Your task to perform on an android device: change text size in settings app Image 0: 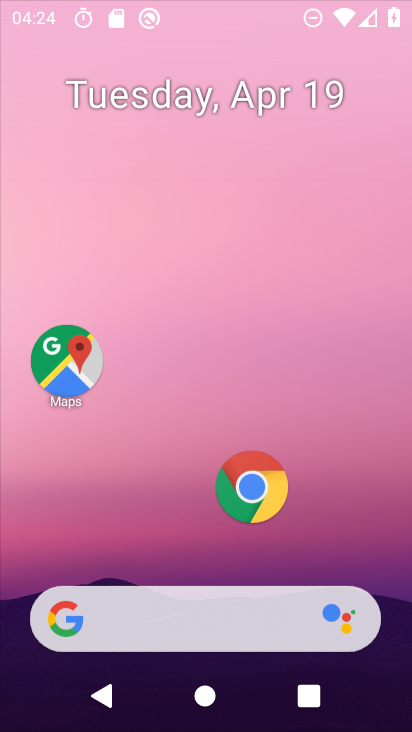
Step 0: click (264, 50)
Your task to perform on an android device: change text size in settings app Image 1: 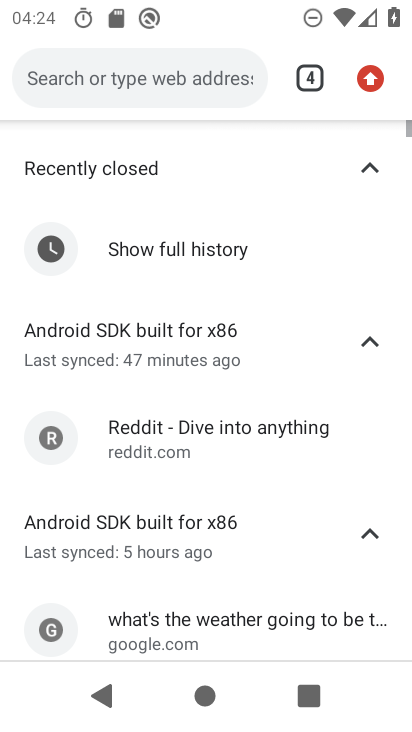
Step 1: press home button
Your task to perform on an android device: change text size in settings app Image 2: 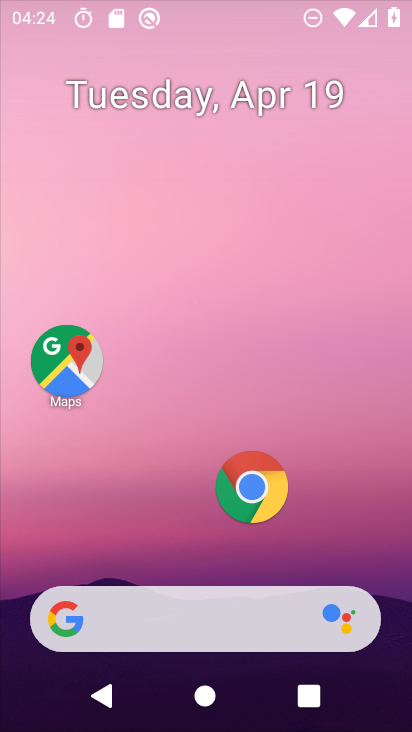
Step 2: drag from (132, 520) to (234, 2)
Your task to perform on an android device: change text size in settings app Image 3: 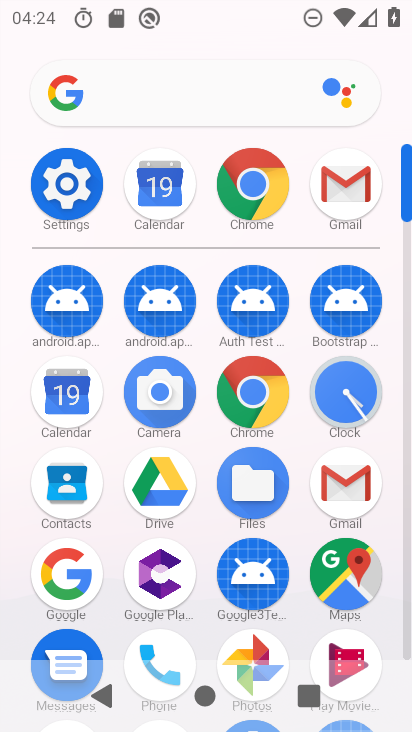
Step 3: click (71, 183)
Your task to perform on an android device: change text size in settings app Image 4: 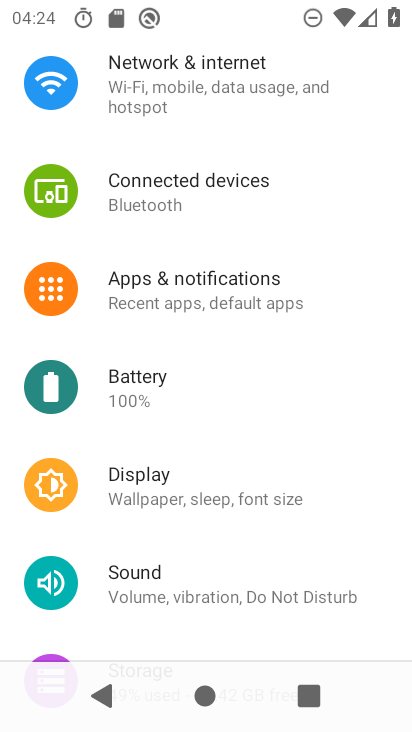
Step 4: drag from (183, 150) to (160, 635)
Your task to perform on an android device: change text size in settings app Image 5: 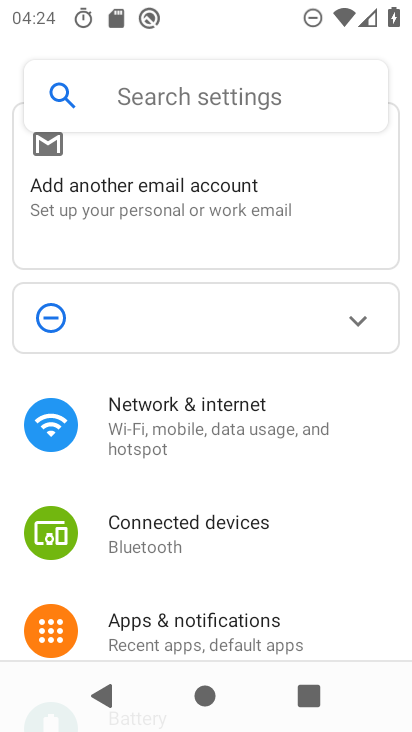
Step 5: click (141, 98)
Your task to perform on an android device: change text size in settings app Image 6: 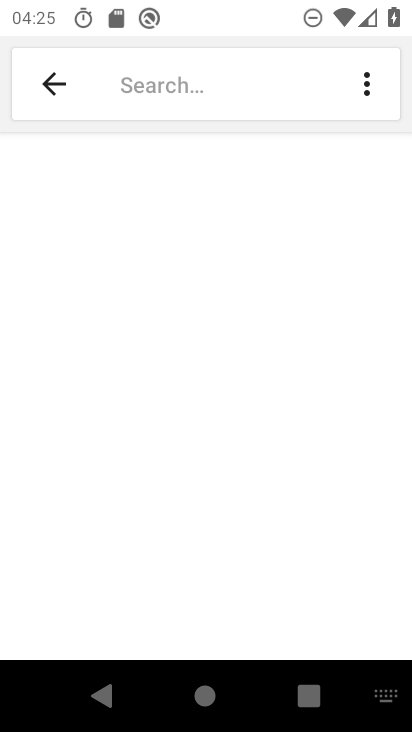
Step 6: type "text size "
Your task to perform on an android device: change text size in settings app Image 7: 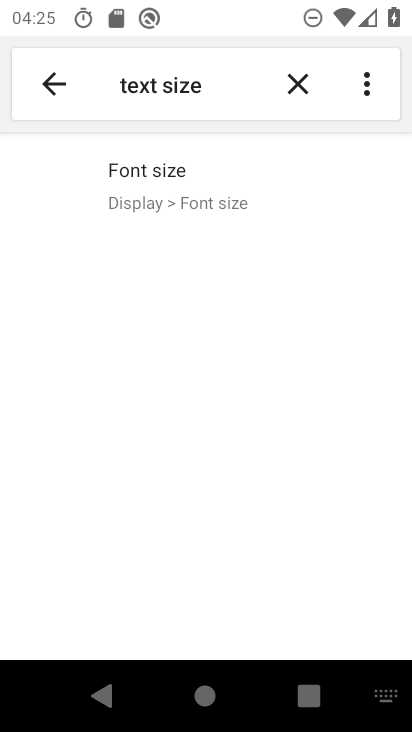
Step 7: click (121, 184)
Your task to perform on an android device: change text size in settings app Image 8: 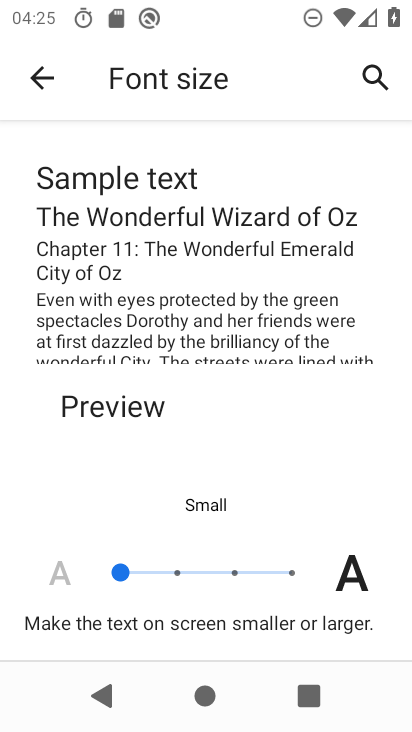
Step 8: click (174, 573)
Your task to perform on an android device: change text size in settings app Image 9: 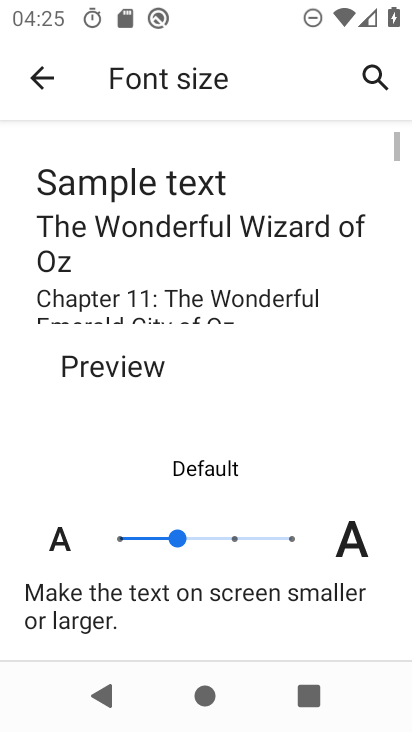
Step 9: task complete